Your task to perform on an android device: Open the web browser Image 0: 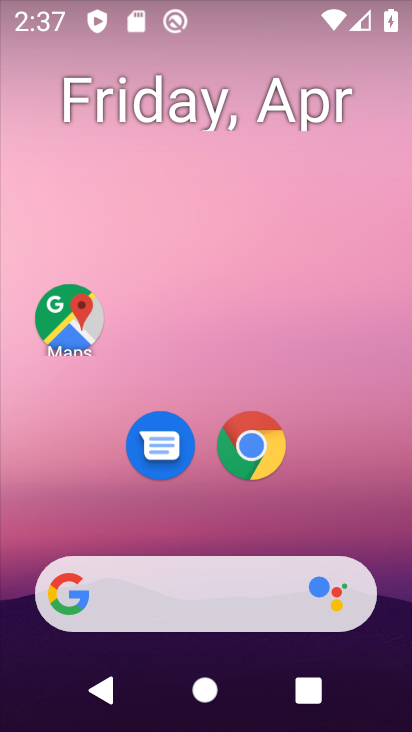
Step 0: click (253, 448)
Your task to perform on an android device: Open the web browser Image 1: 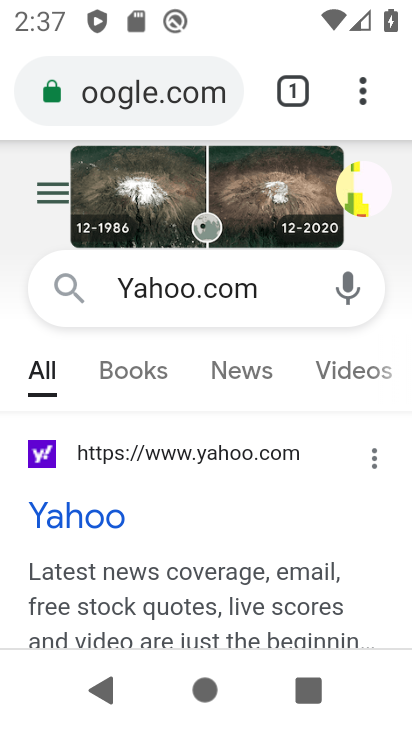
Step 1: task complete